Your task to perform on an android device: turn off location Image 0: 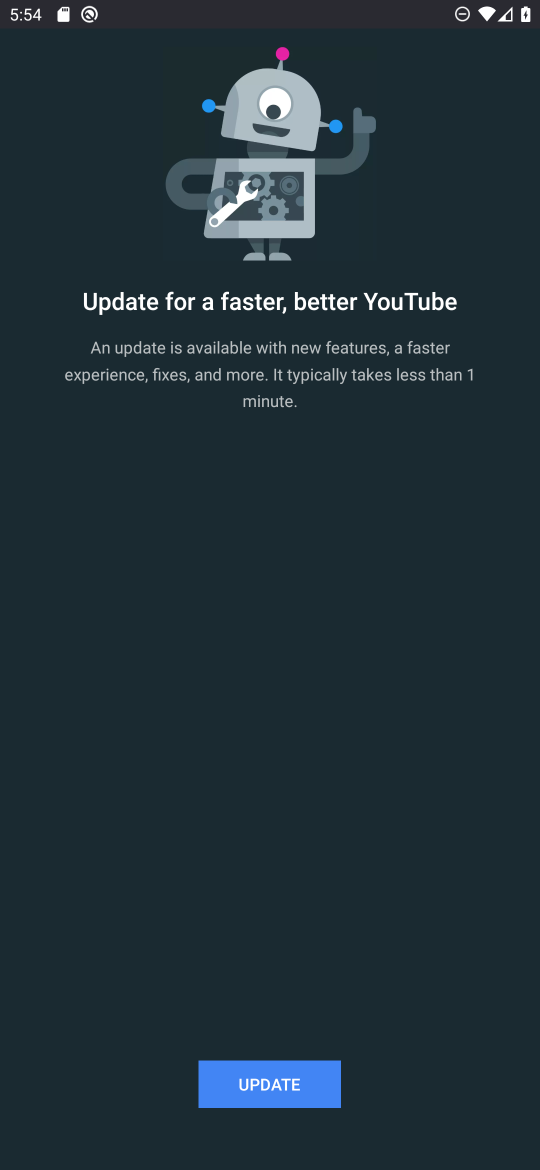
Step 0: press home button
Your task to perform on an android device: turn off location Image 1: 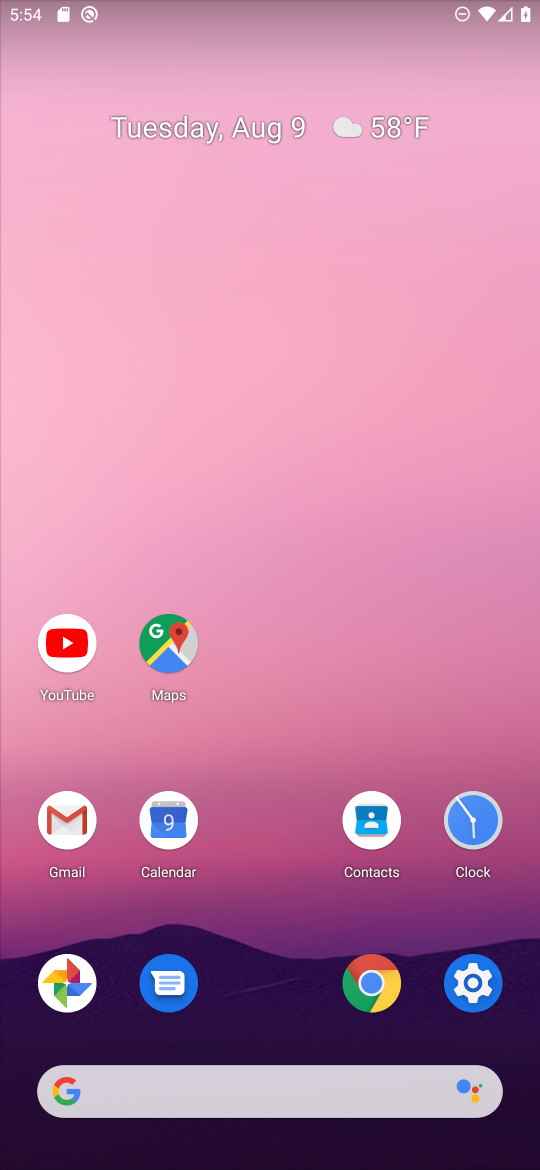
Step 1: click (472, 978)
Your task to perform on an android device: turn off location Image 2: 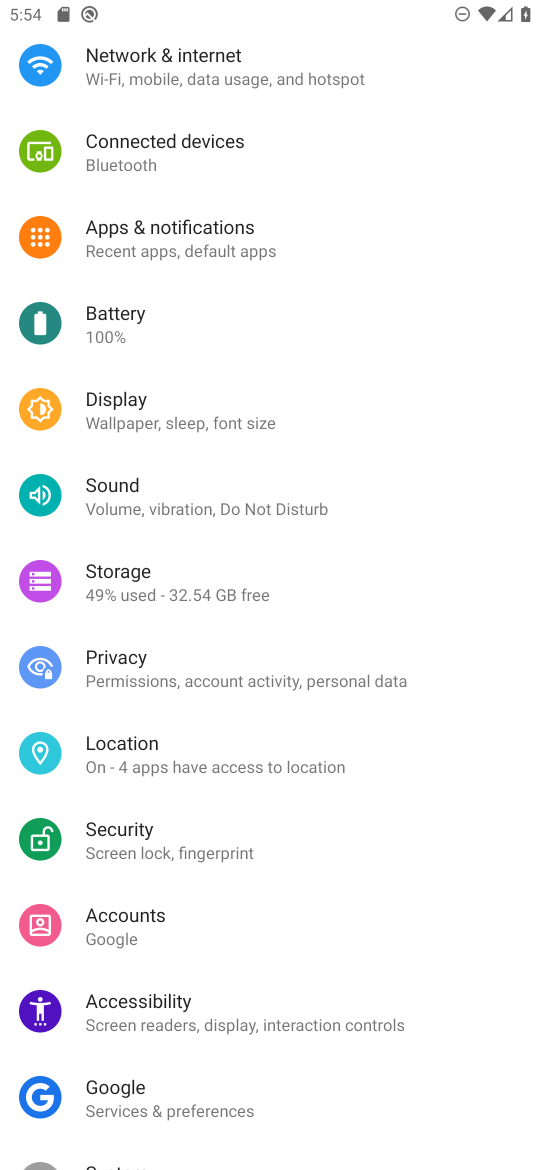
Step 2: click (124, 747)
Your task to perform on an android device: turn off location Image 3: 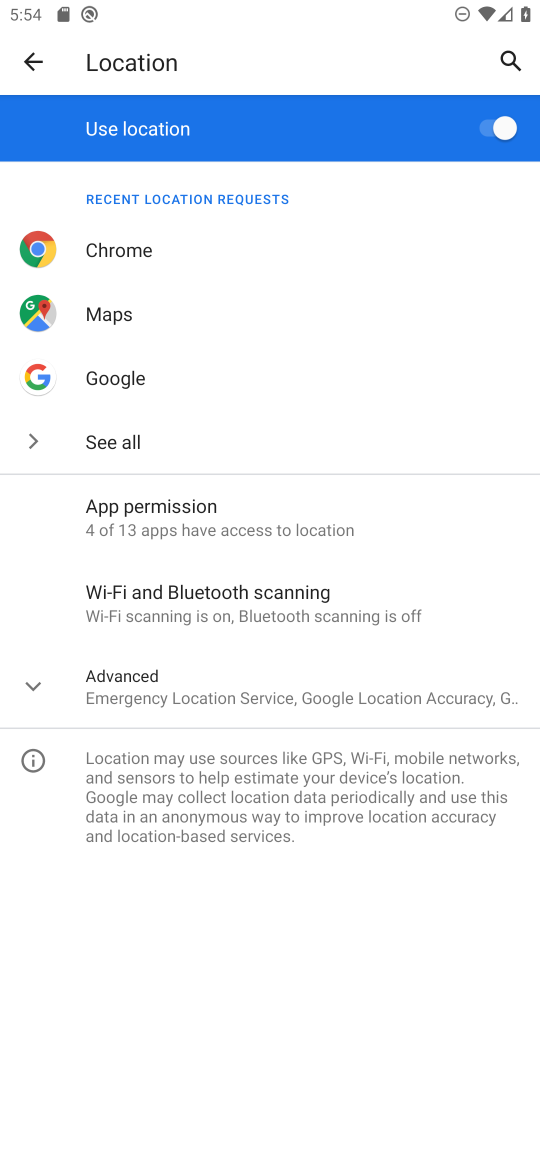
Step 3: click (507, 123)
Your task to perform on an android device: turn off location Image 4: 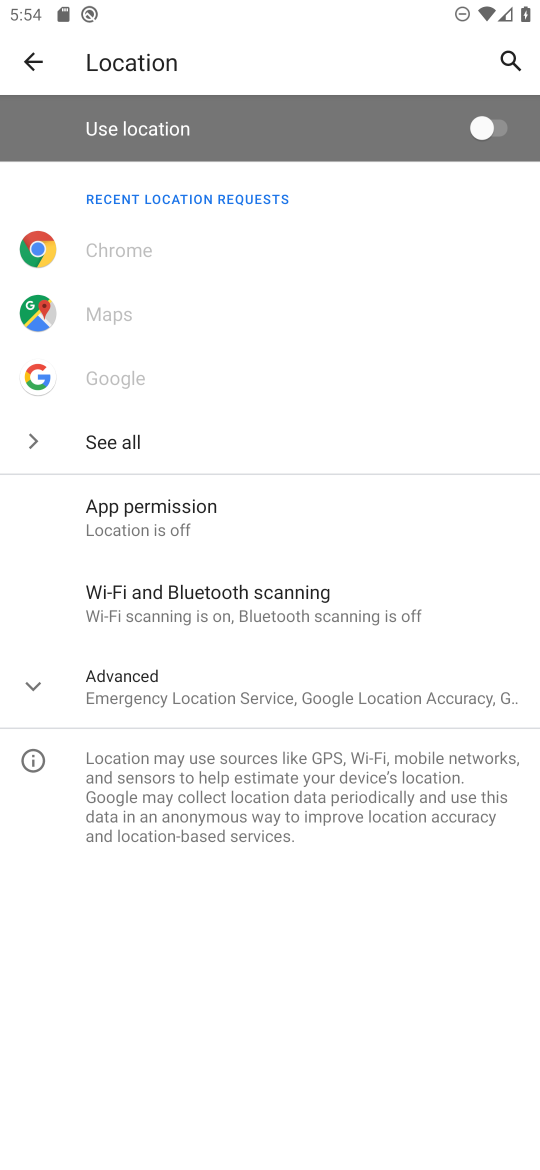
Step 4: task complete